Your task to perform on an android device: Open Yahoo.com Image 0: 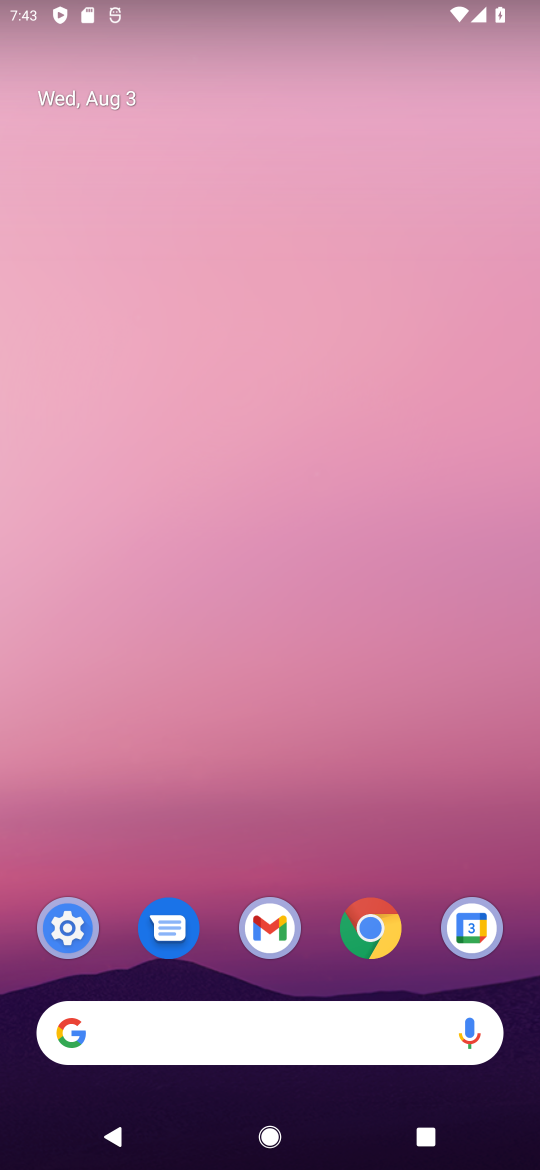
Step 0: click (387, 926)
Your task to perform on an android device: Open Yahoo.com Image 1: 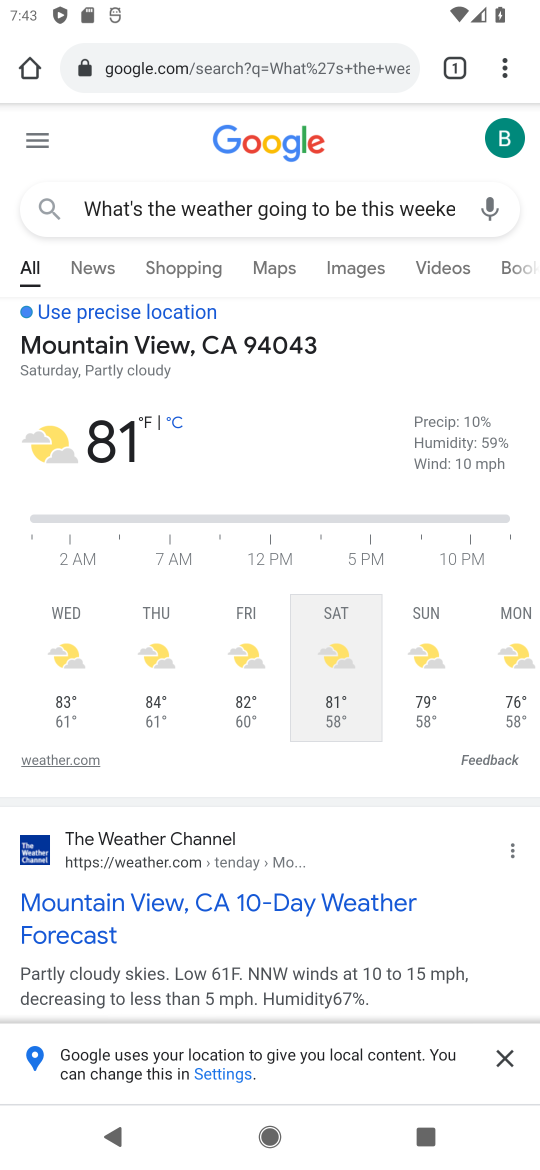
Step 1: click (449, 76)
Your task to perform on an android device: Open Yahoo.com Image 2: 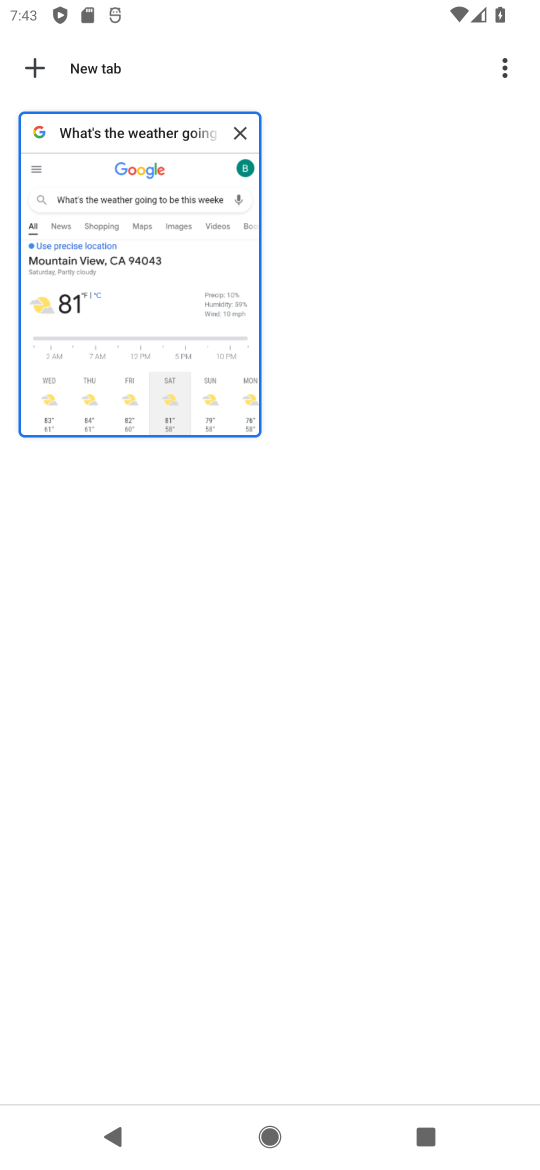
Step 2: click (69, 76)
Your task to perform on an android device: Open Yahoo.com Image 3: 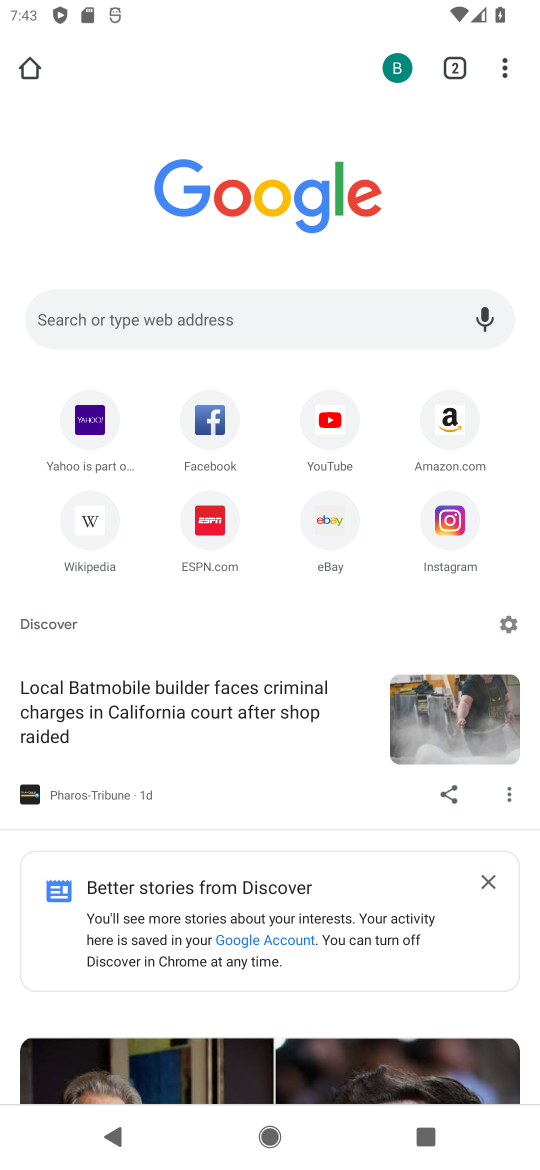
Step 3: click (98, 426)
Your task to perform on an android device: Open Yahoo.com Image 4: 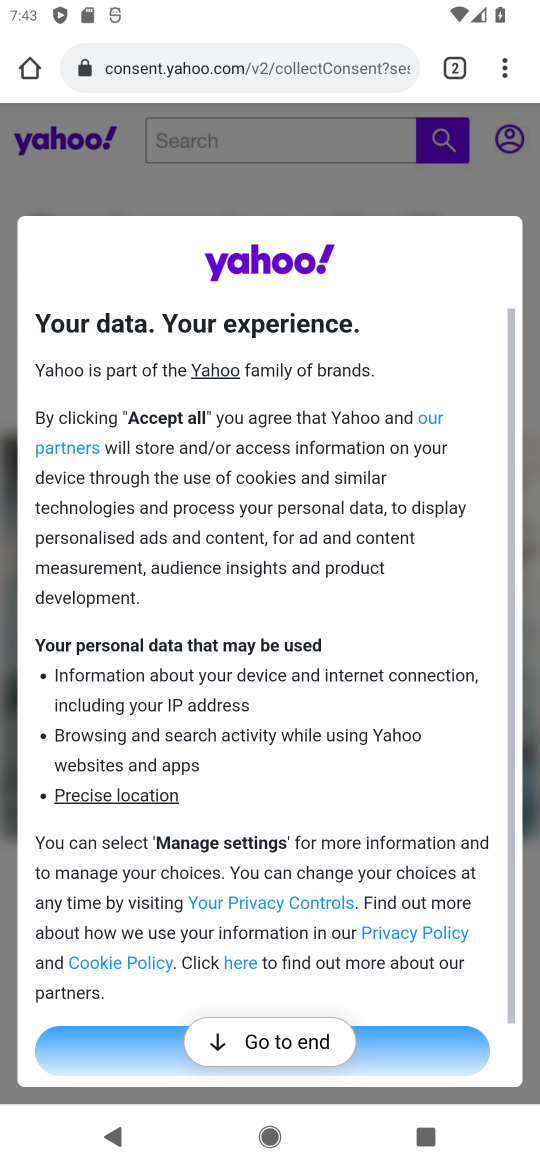
Step 4: task complete